Your task to perform on an android device: Check the weather Image 0: 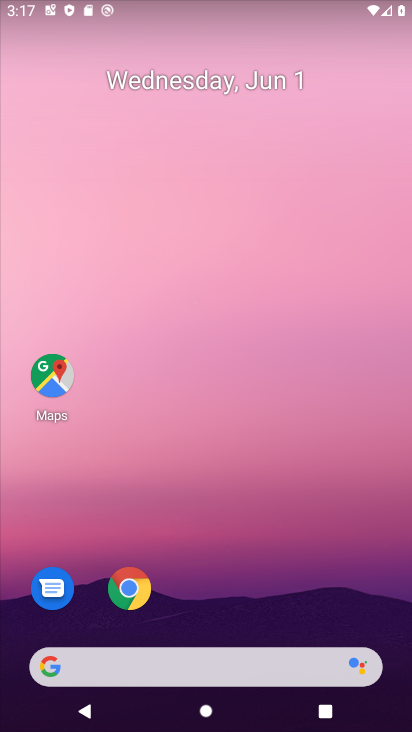
Step 0: drag from (15, 239) to (208, 272)
Your task to perform on an android device: Check the weather Image 1: 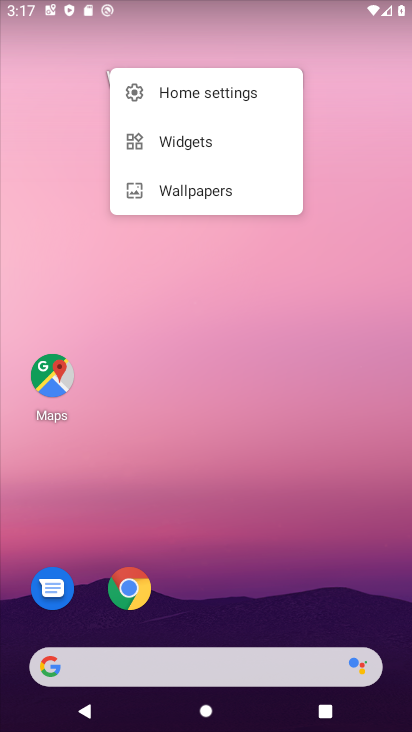
Step 1: drag from (9, 297) to (263, 354)
Your task to perform on an android device: Check the weather Image 2: 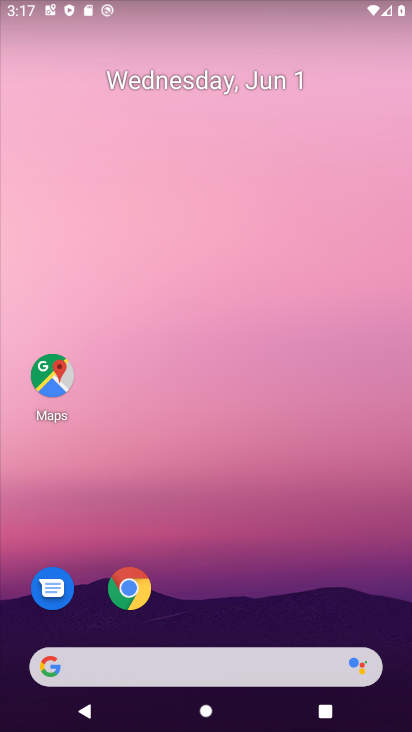
Step 2: drag from (3, 301) to (404, 271)
Your task to perform on an android device: Check the weather Image 3: 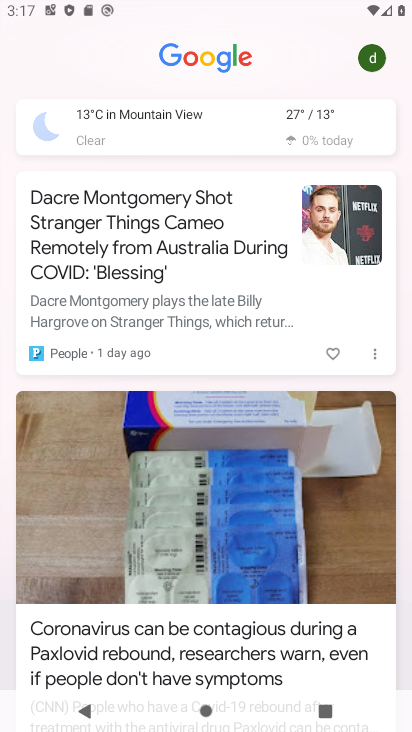
Step 3: click (305, 130)
Your task to perform on an android device: Check the weather Image 4: 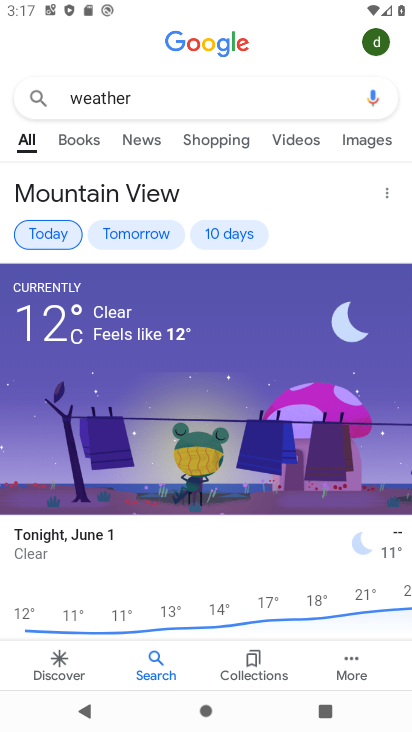
Step 4: task complete